Your task to perform on an android device: Open network settings Image 0: 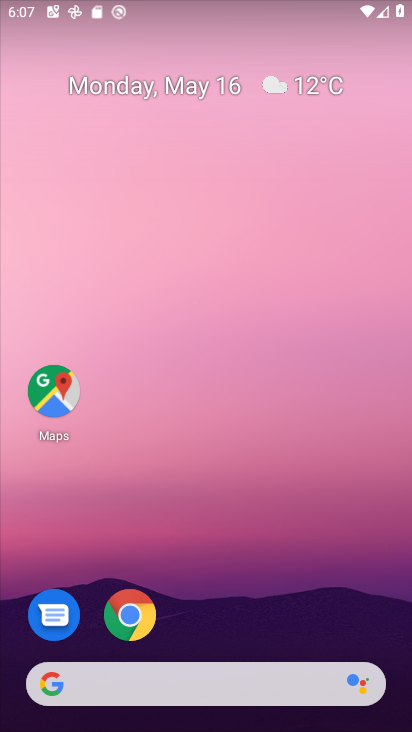
Step 0: drag from (330, 223) to (338, 54)
Your task to perform on an android device: Open network settings Image 1: 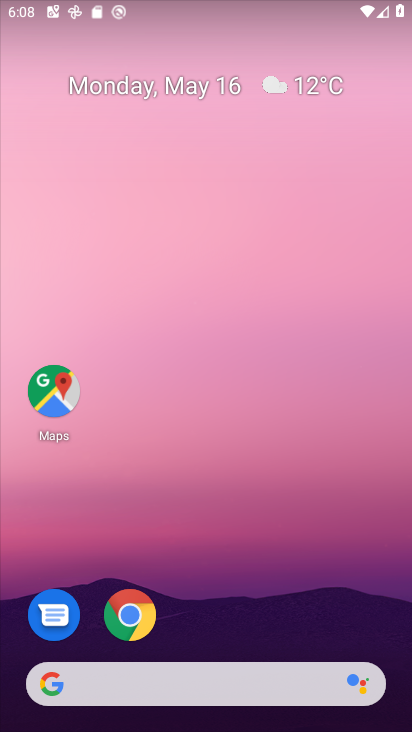
Step 1: drag from (206, 285) to (230, 20)
Your task to perform on an android device: Open network settings Image 2: 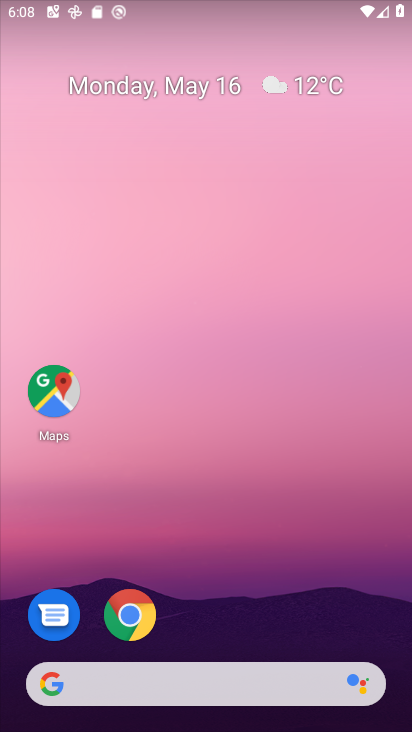
Step 2: drag from (214, 615) to (209, 83)
Your task to perform on an android device: Open network settings Image 3: 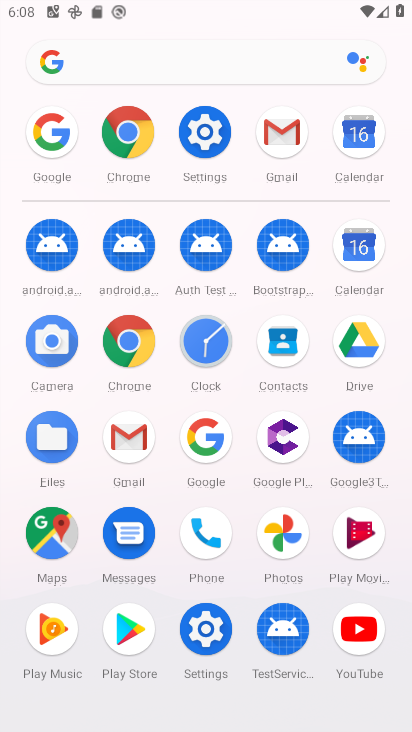
Step 3: click (199, 139)
Your task to perform on an android device: Open network settings Image 4: 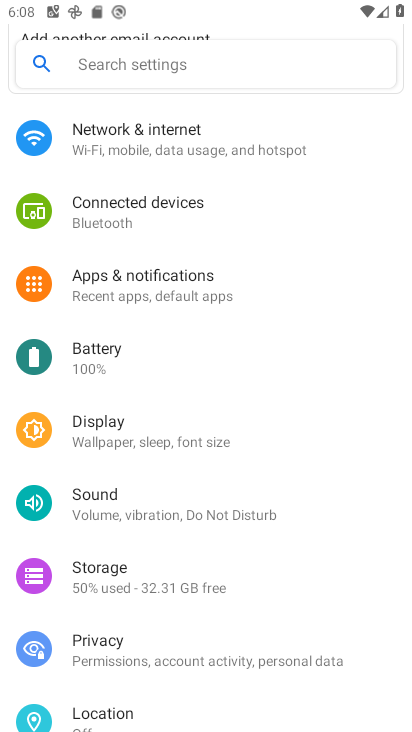
Step 4: click (131, 145)
Your task to perform on an android device: Open network settings Image 5: 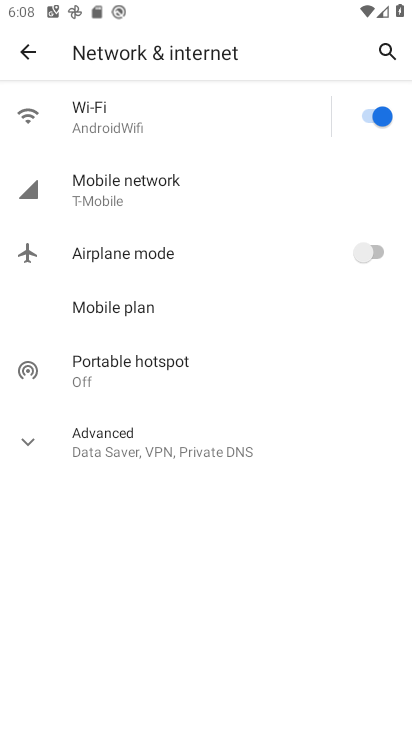
Step 5: task complete